Your task to perform on an android device: add a contact Image 0: 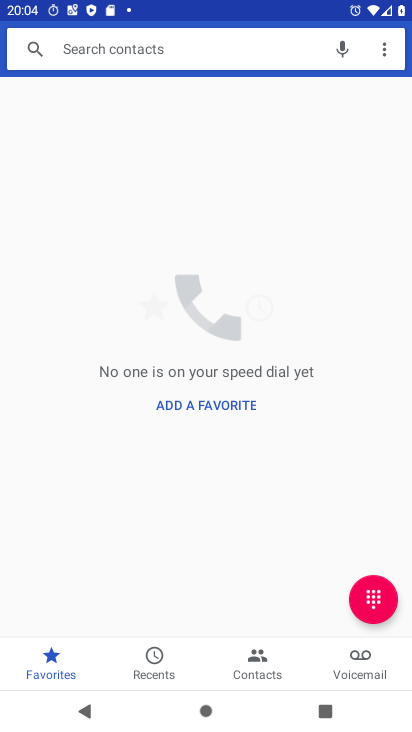
Step 0: press home button
Your task to perform on an android device: add a contact Image 1: 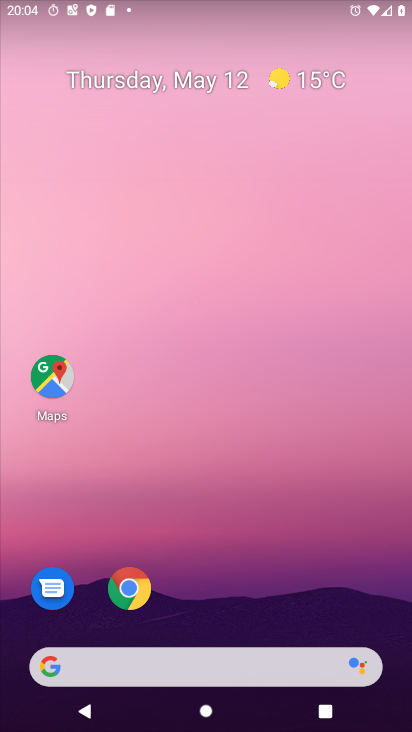
Step 1: drag from (259, 619) to (313, 210)
Your task to perform on an android device: add a contact Image 2: 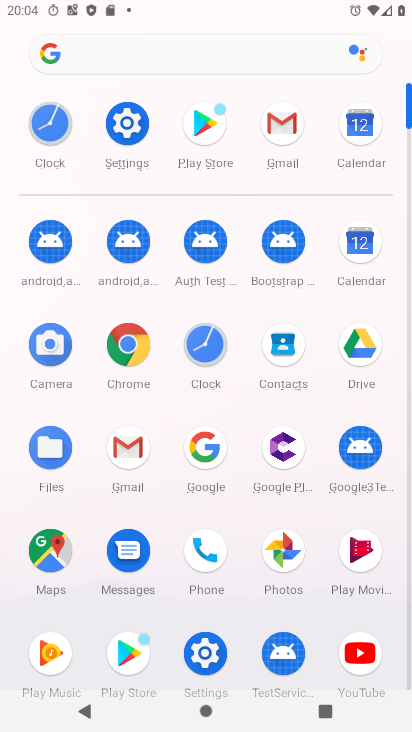
Step 2: click (277, 346)
Your task to perform on an android device: add a contact Image 3: 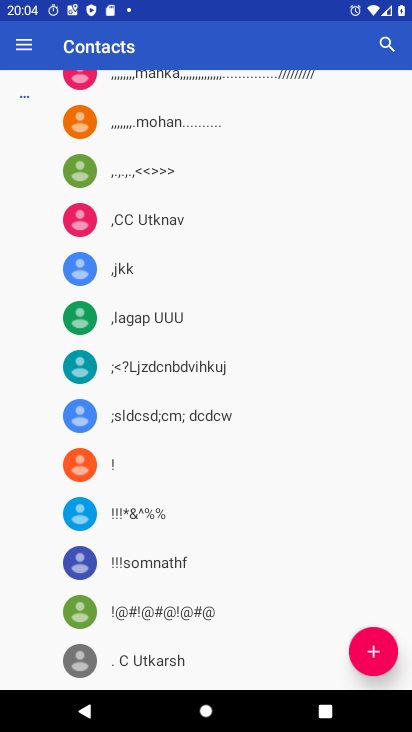
Step 3: click (375, 651)
Your task to perform on an android device: add a contact Image 4: 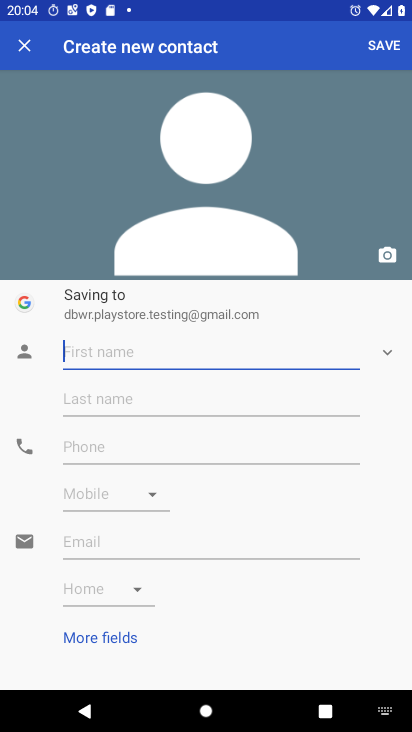
Step 4: type "jhk"
Your task to perform on an android device: add a contact Image 5: 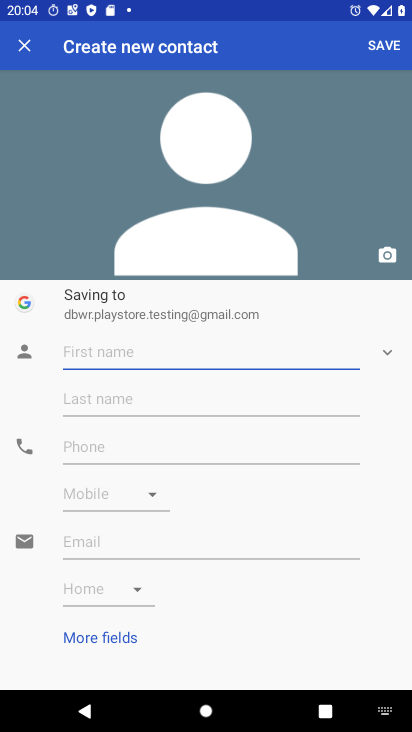
Step 5: click (171, 398)
Your task to perform on an android device: add a contact Image 6: 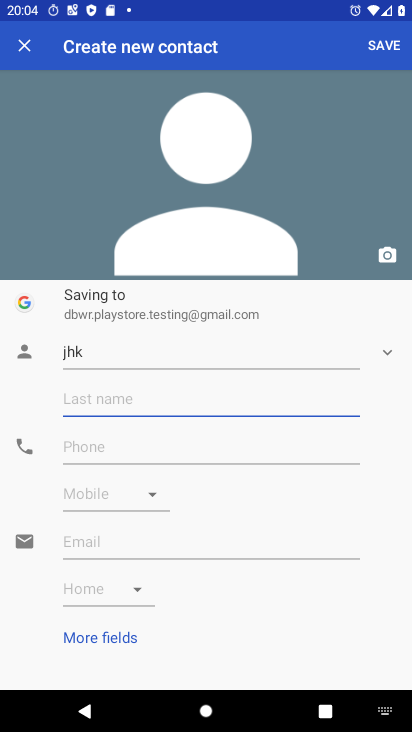
Step 6: type "jkk"
Your task to perform on an android device: add a contact Image 7: 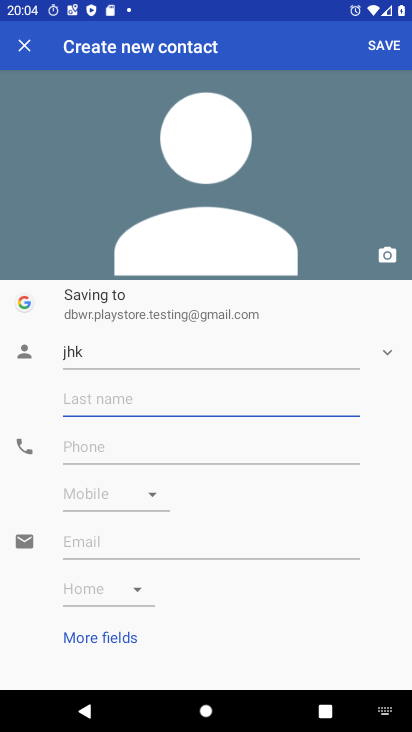
Step 7: click (145, 438)
Your task to perform on an android device: add a contact Image 8: 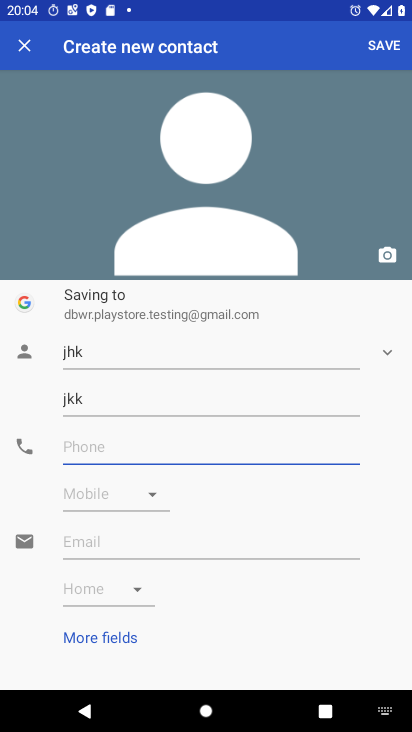
Step 8: click (125, 449)
Your task to perform on an android device: add a contact Image 9: 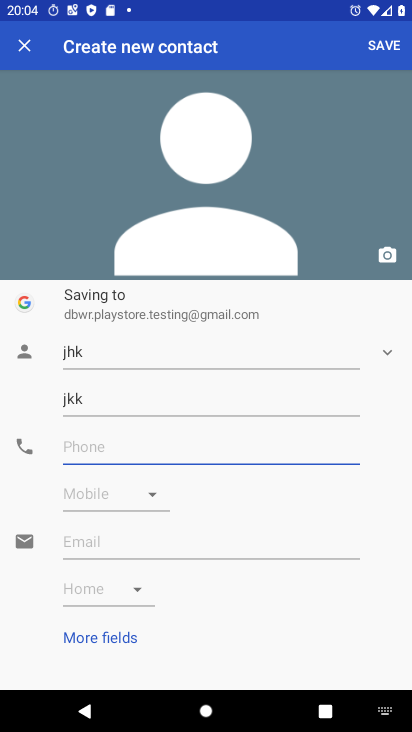
Step 9: type "787"
Your task to perform on an android device: add a contact Image 10: 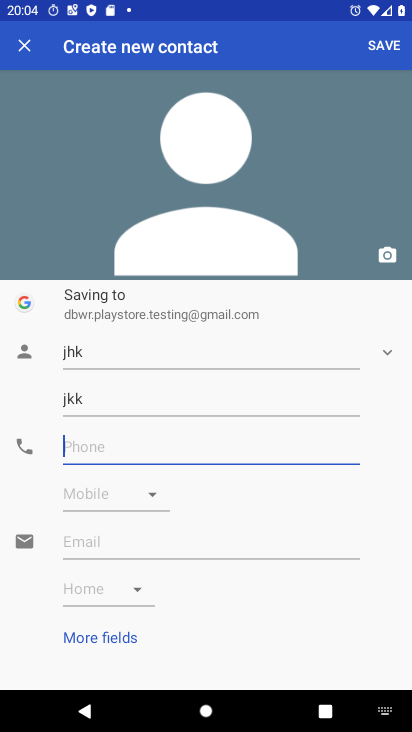
Step 10: click (321, 504)
Your task to perform on an android device: add a contact Image 11: 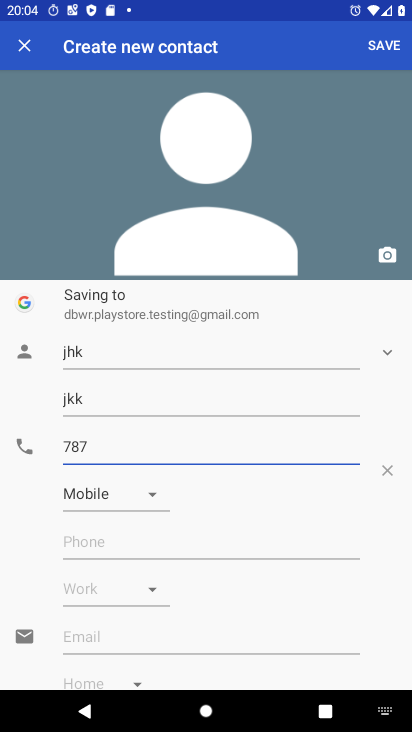
Step 11: click (374, 48)
Your task to perform on an android device: add a contact Image 12: 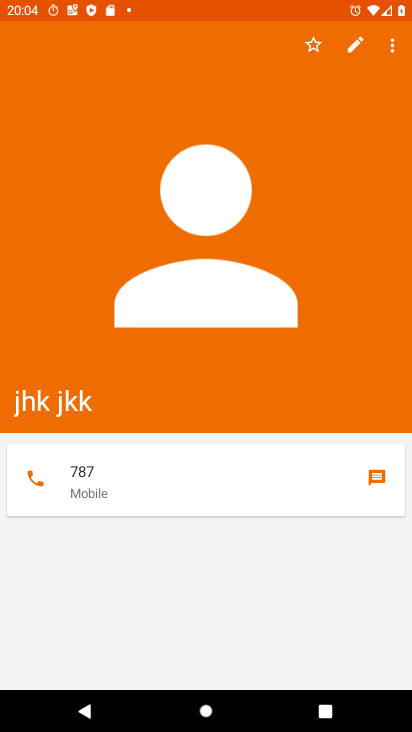
Step 12: task complete